Your task to perform on an android device: Open CNN.com Image 0: 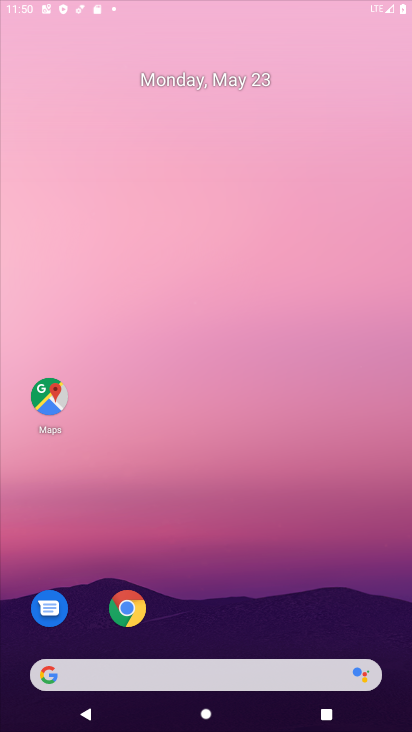
Step 0: click (247, 13)
Your task to perform on an android device: Open CNN.com Image 1: 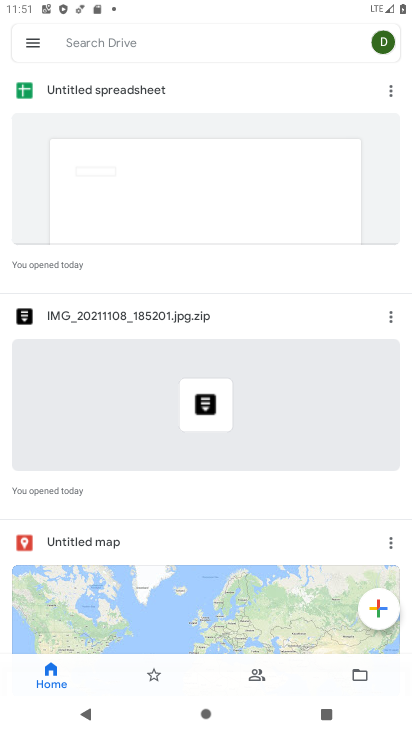
Step 1: press home button
Your task to perform on an android device: Open CNN.com Image 2: 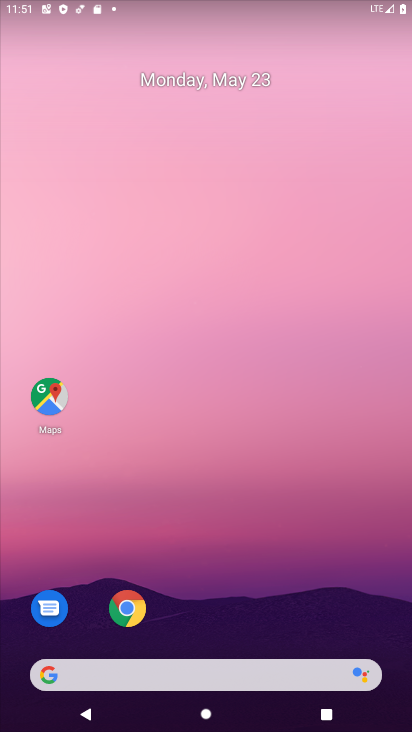
Step 2: click (124, 602)
Your task to perform on an android device: Open CNN.com Image 3: 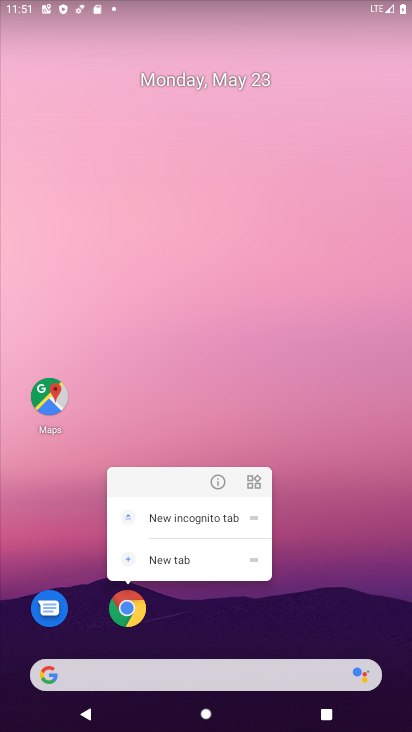
Step 3: click (191, 624)
Your task to perform on an android device: Open CNN.com Image 4: 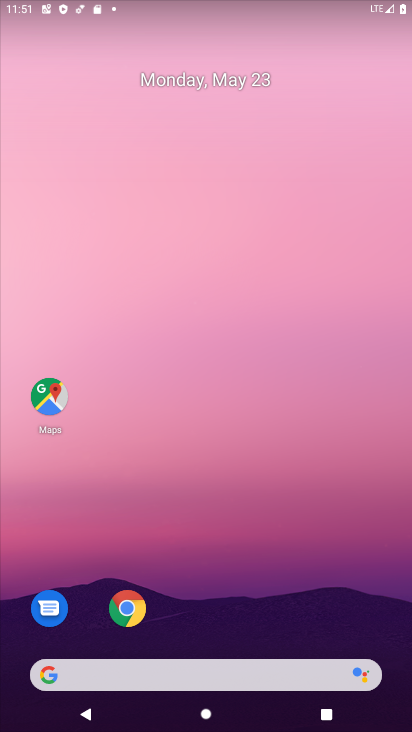
Step 4: click (124, 602)
Your task to perform on an android device: Open CNN.com Image 5: 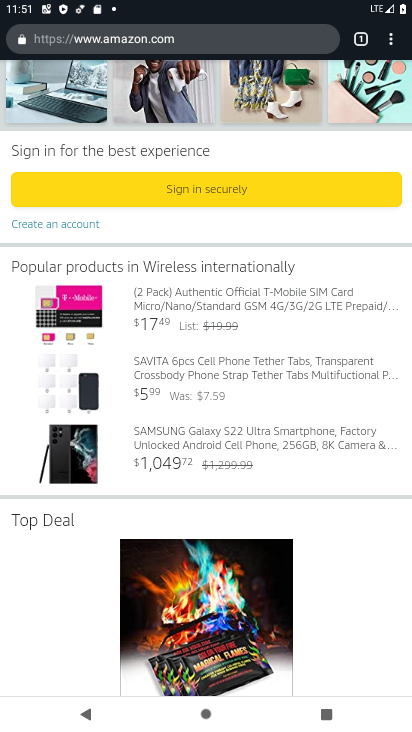
Step 5: click (358, 39)
Your task to perform on an android device: Open CNN.com Image 6: 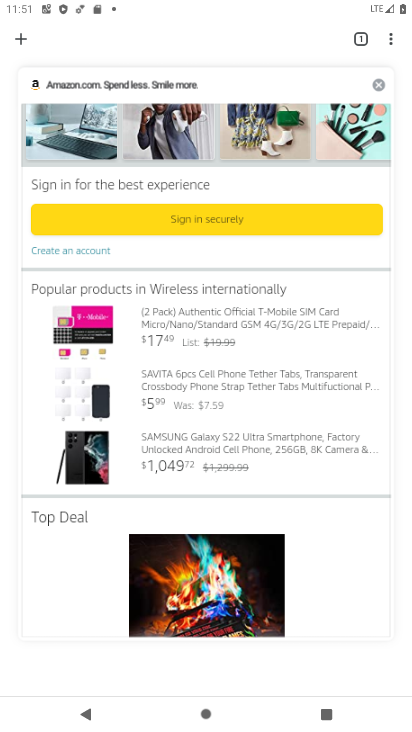
Step 6: click (379, 81)
Your task to perform on an android device: Open CNN.com Image 7: 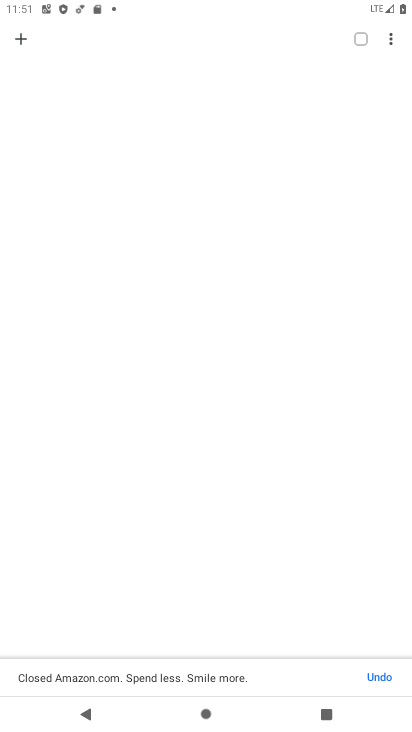
Step 7: click (22, 37)
Your task to perform on an android device: Open CNN.com Image 8: 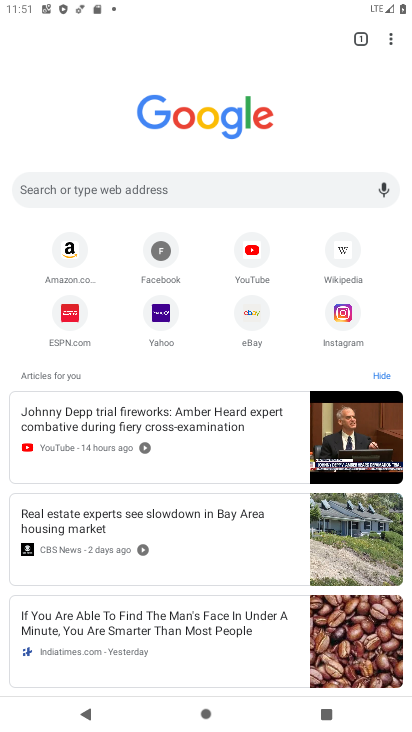
Step 8: click (84, 186)
Your task to perform on an android device: Open CNN.com Image 9: 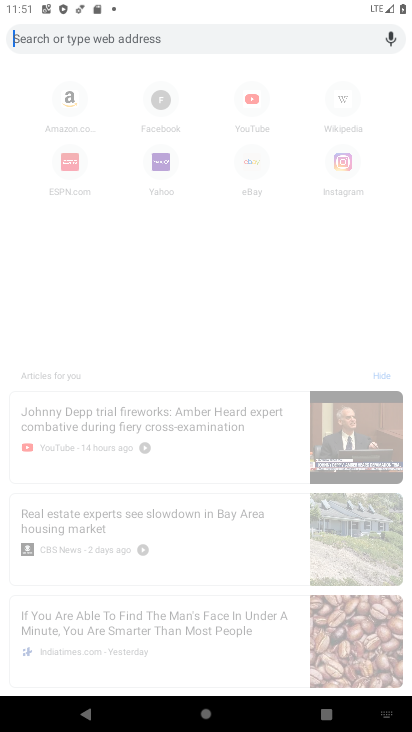
Step 9: type "cnn.com"
Your task to perform on an android device: Open CNN.com Image 10: 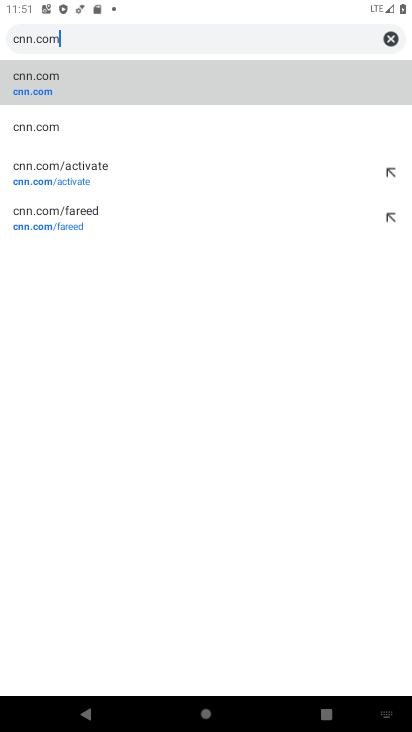
Step 10: click (41, 81)
Your task to perform on an android device: Open CNN.com Image 11: 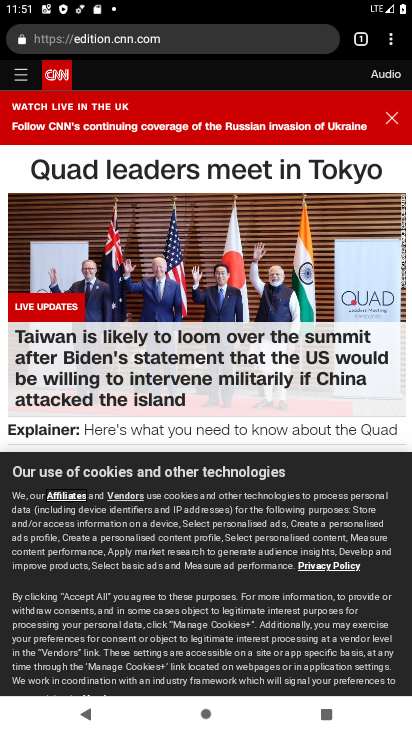
Step 11: drag from (217, 580) to (219, 147)
Your task to perform on an android device: Open CNN.com Image 12: 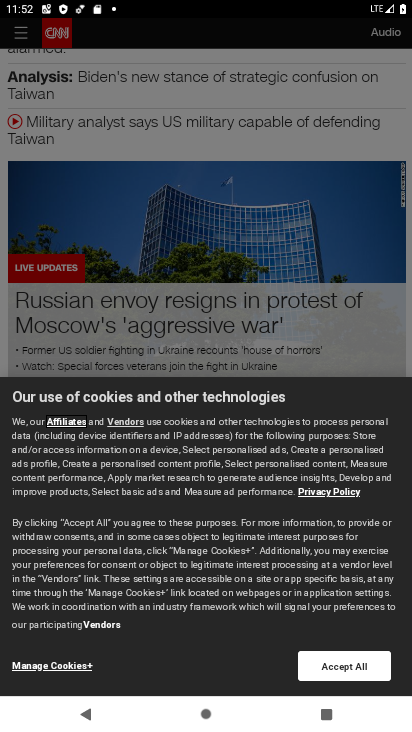
Step 12: click (334, 663)
Your task to perform on an android device: Open CNN.com Image 13: 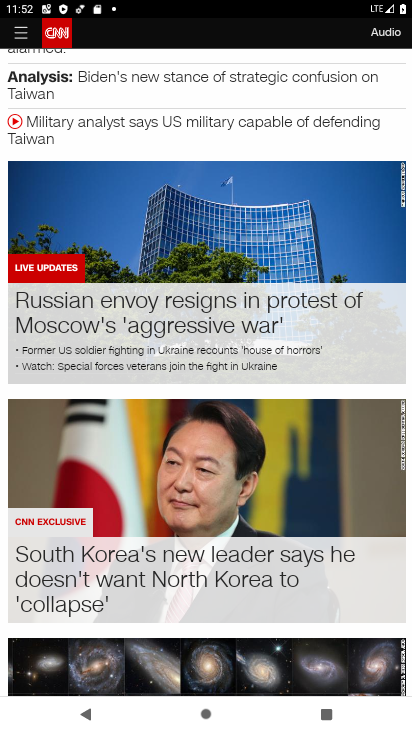
Step 13: task complete